Your task to perform on an android device: open chrome privacy settings Image 0: 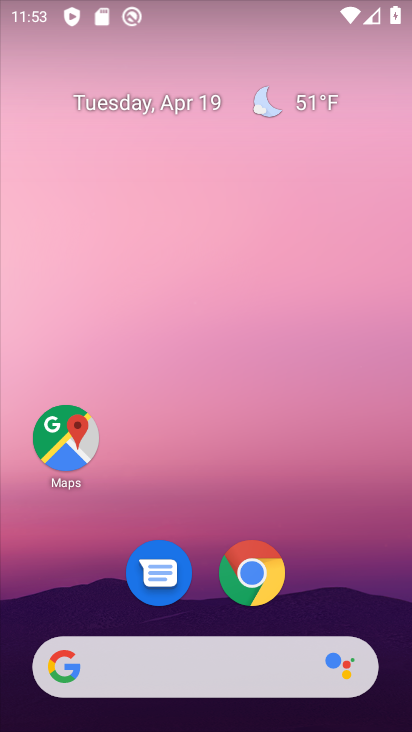
Step 0: drag from (314, 557) to (301, 162)
Your task to perform on an android device: open chrome privacy settings Image 1: 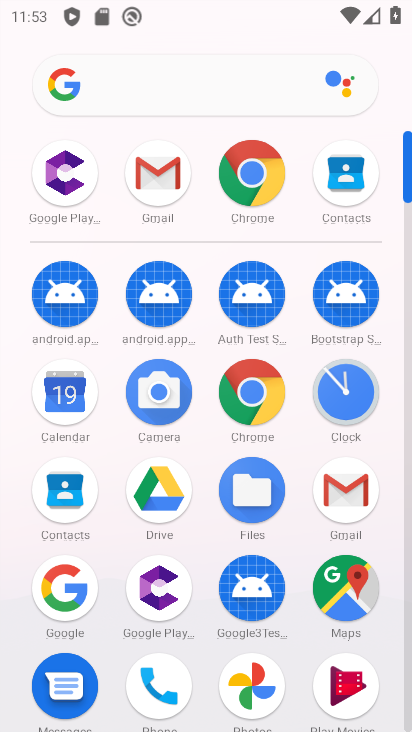
Step 1: click (259, 414)
Your task to perform on an android device: open chrome privacy settings Image 2: 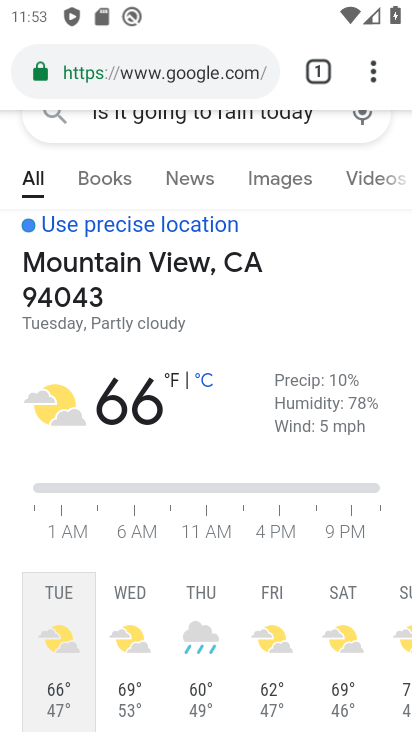
Step 2: drag from (365, 79) to (204, 572)
Your task to perform on an android device: open chrome privacy settings Image 3: 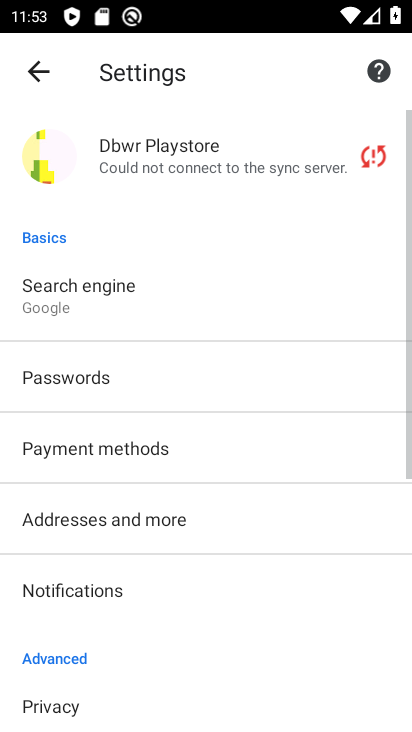
Step 3: drag from (205, 621) to (231, 275)
Your task to perform on an android device: open chrome privacy settings Image 4: 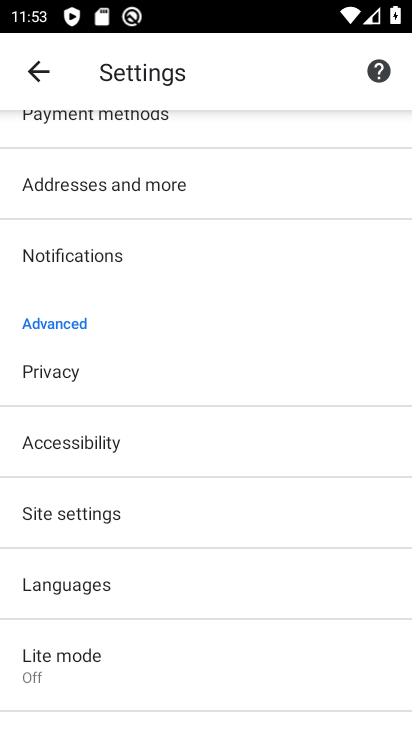
Step 4: click (85, 376)
Your task to perform on an android device: open chrome privacy settings Image 5: 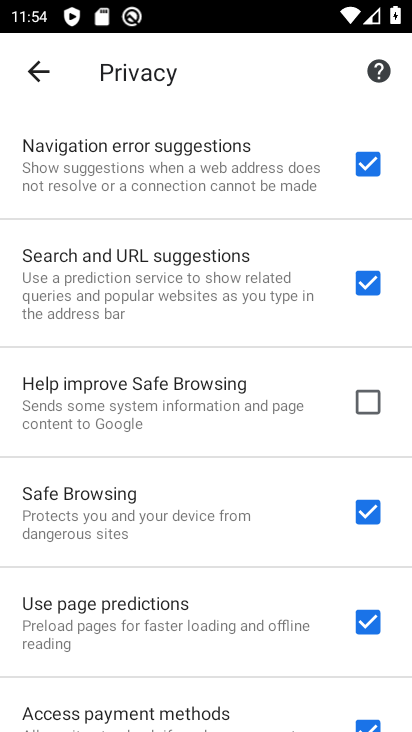
Step 5: task complete